Your task to perform on an android device: Open Google Maps Image 0: 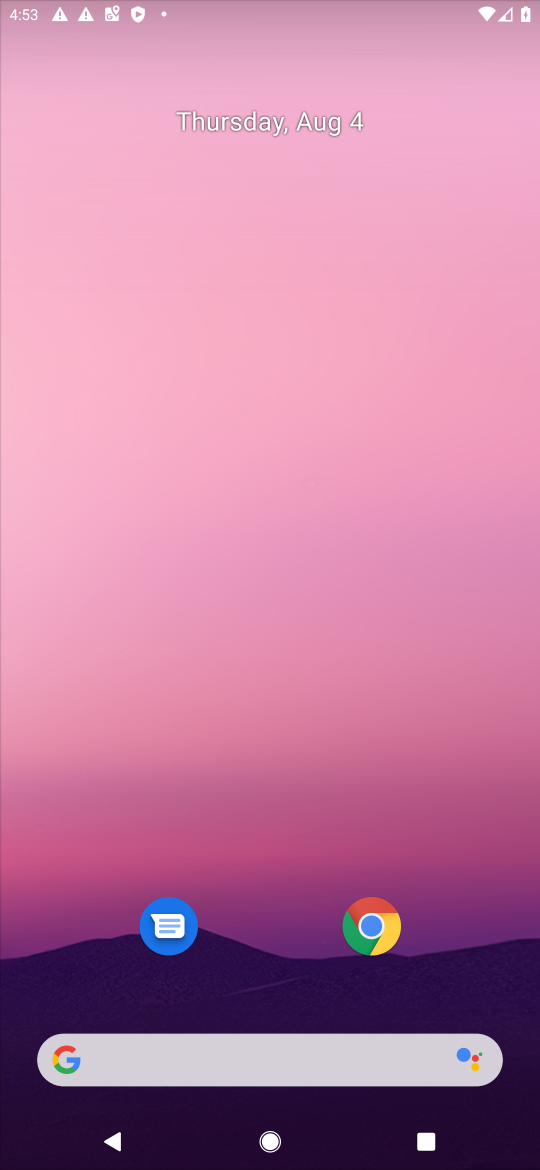
Step 0: press home button
Your task to perform on an android device: Open Google Maps Image 1: 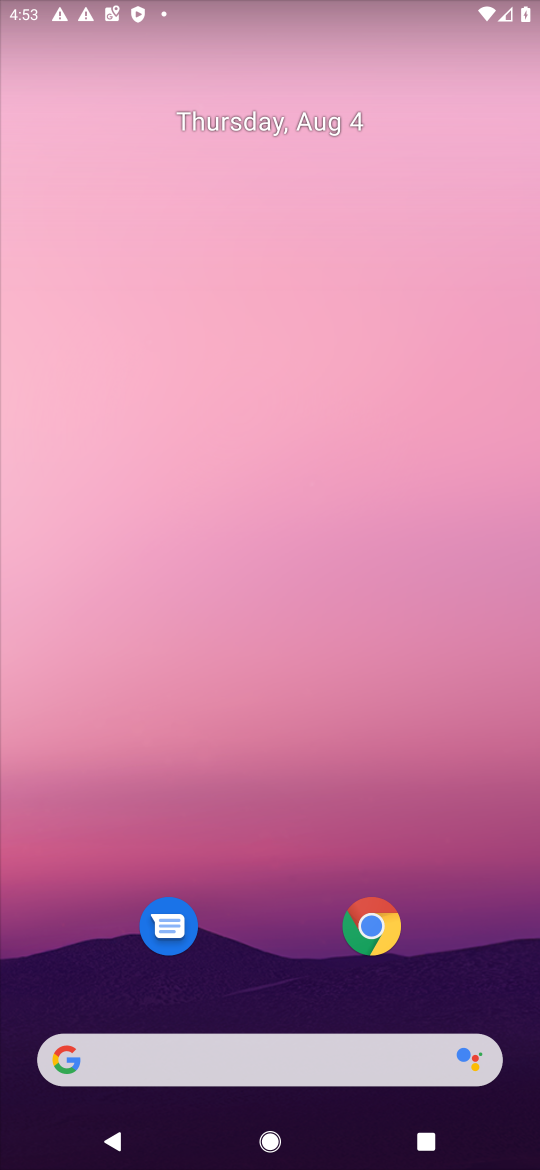
Step 1: drag from (307, 1010) to (383, 237)
Your task to perform on an android device: Open Google Maps Image 2: 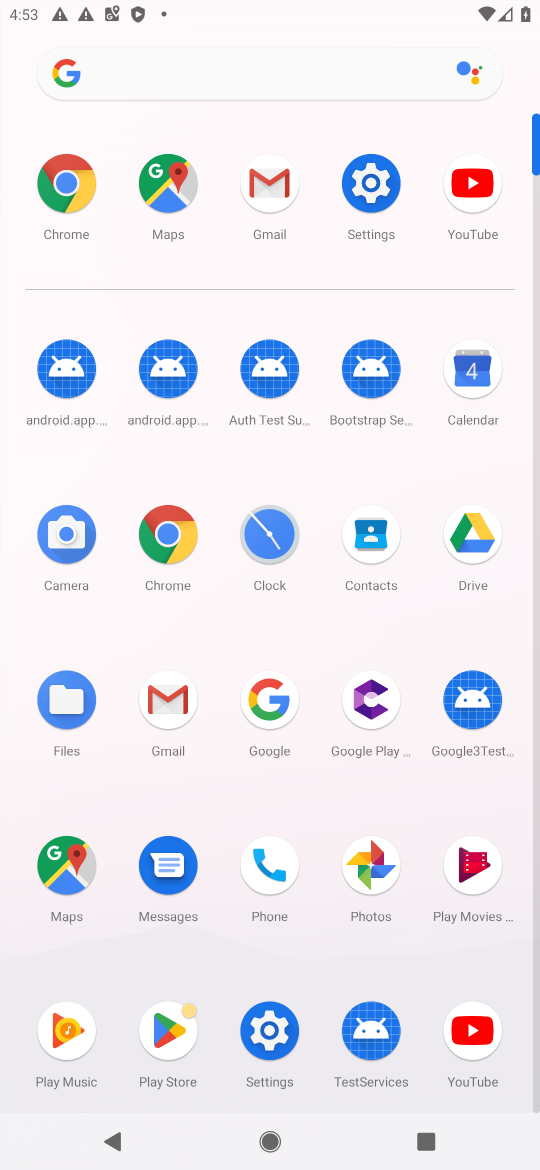
Step 2: click (166, 168)
Your task to perform on an android device: Open Google Maps Image 3: 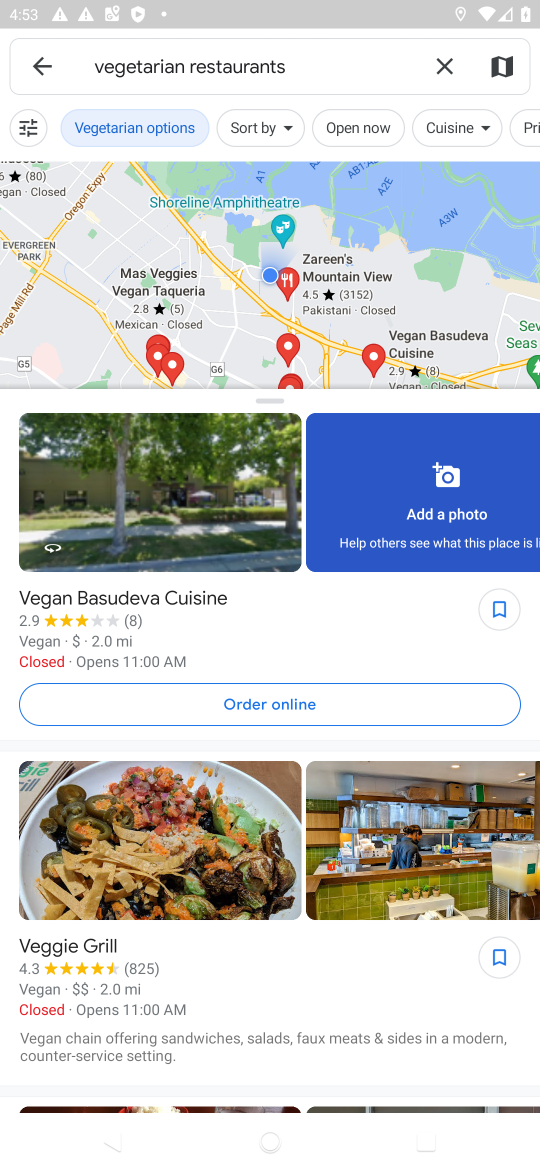
Step 3: click (46, 75)
Your task to perform on an android device: Open Google Maps Image 4: 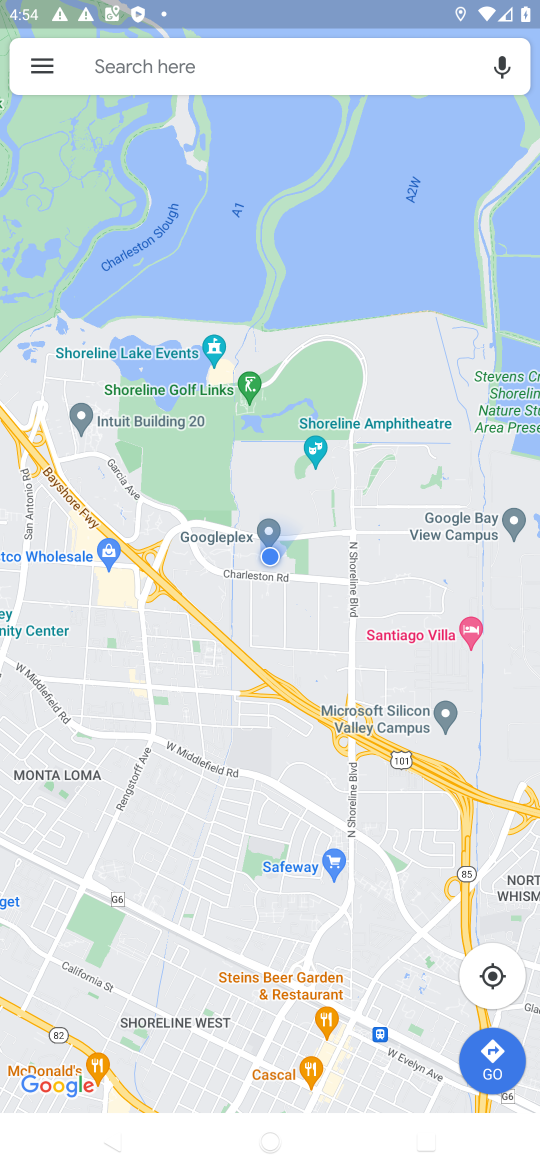
Step 4: task complete